Your task to perform on an android device: open sync settings in chrome Image 0: 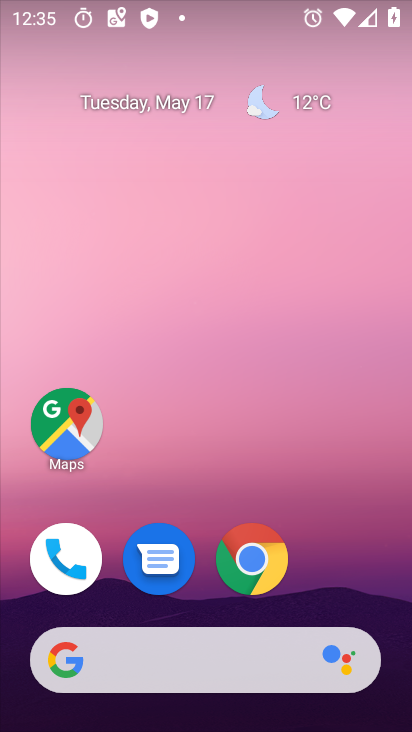
Step 0: click (259, 561)
Your task to perform on an android device: open sync settings in chrome Image 1: 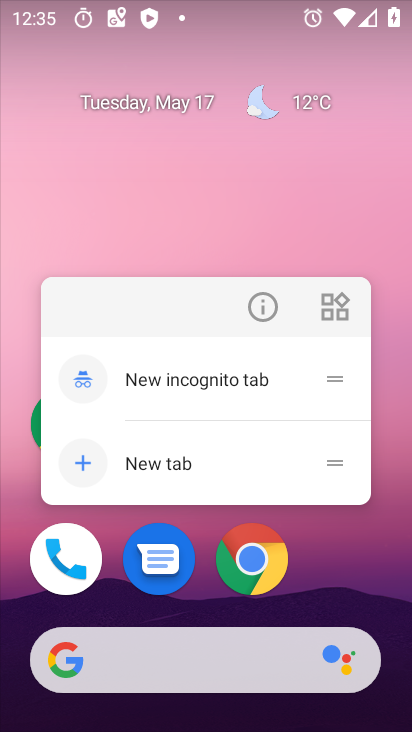
Step 1: click (258, 560)
Your task to perform on an android device: open sync settings in chrome Image 2: 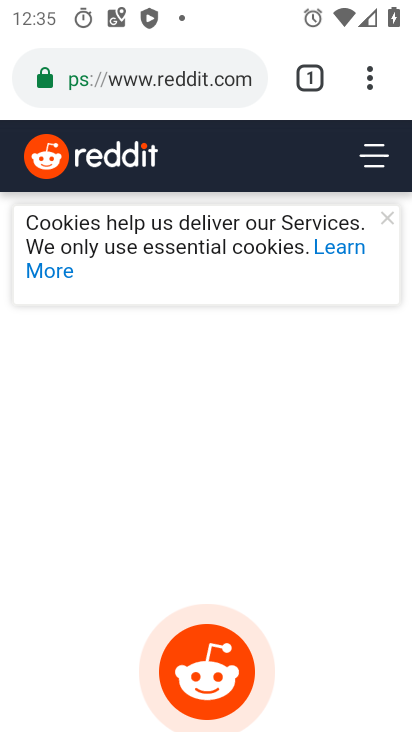
Step 2: drag from (371, 89) to (159, 618)
Your task to perform on an android device: open sync settings in chrome Image 3: 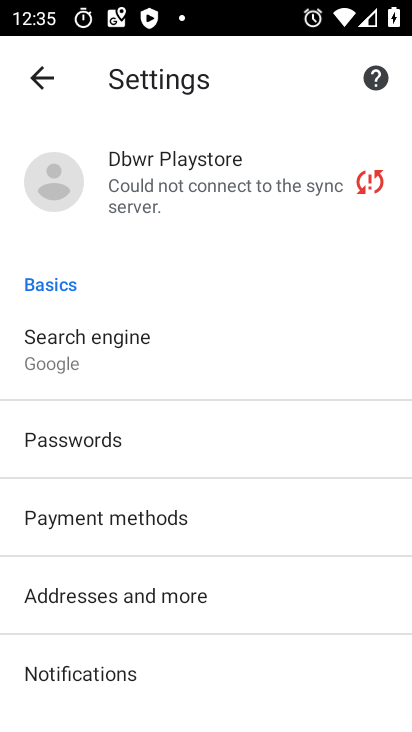
Step 3: click (216, 198)
Your task to perform on an android device: open sync settings in chrome Image 4: 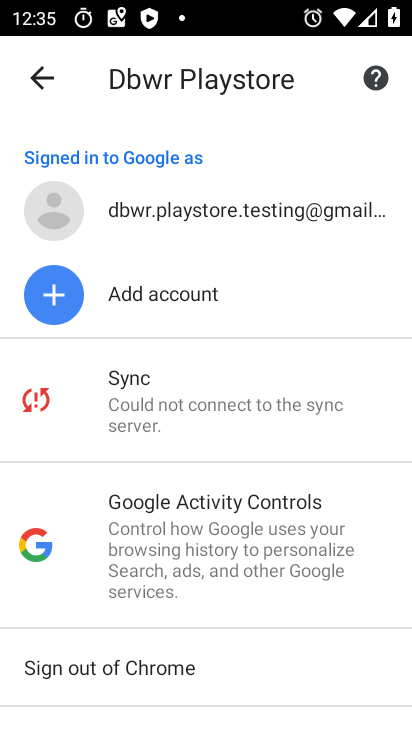
Step 4: click (197, 418)
Your task to perform on an android device: open sync settings in chrome Image 5: 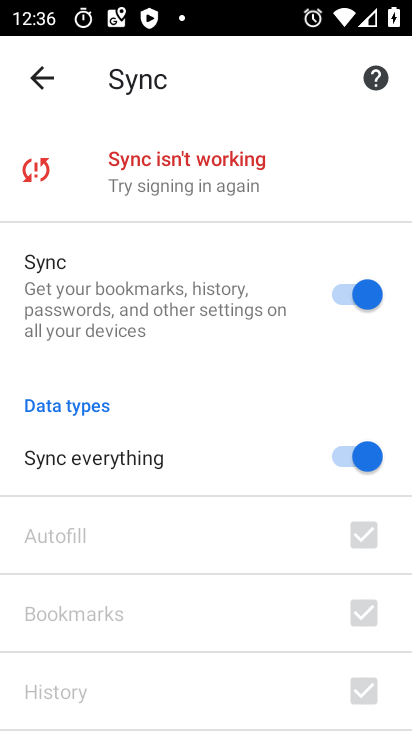
Step 5: task complete